Your task to perform on an android device: open app "Airtel Thanks" (install if not already installed) Image 0: 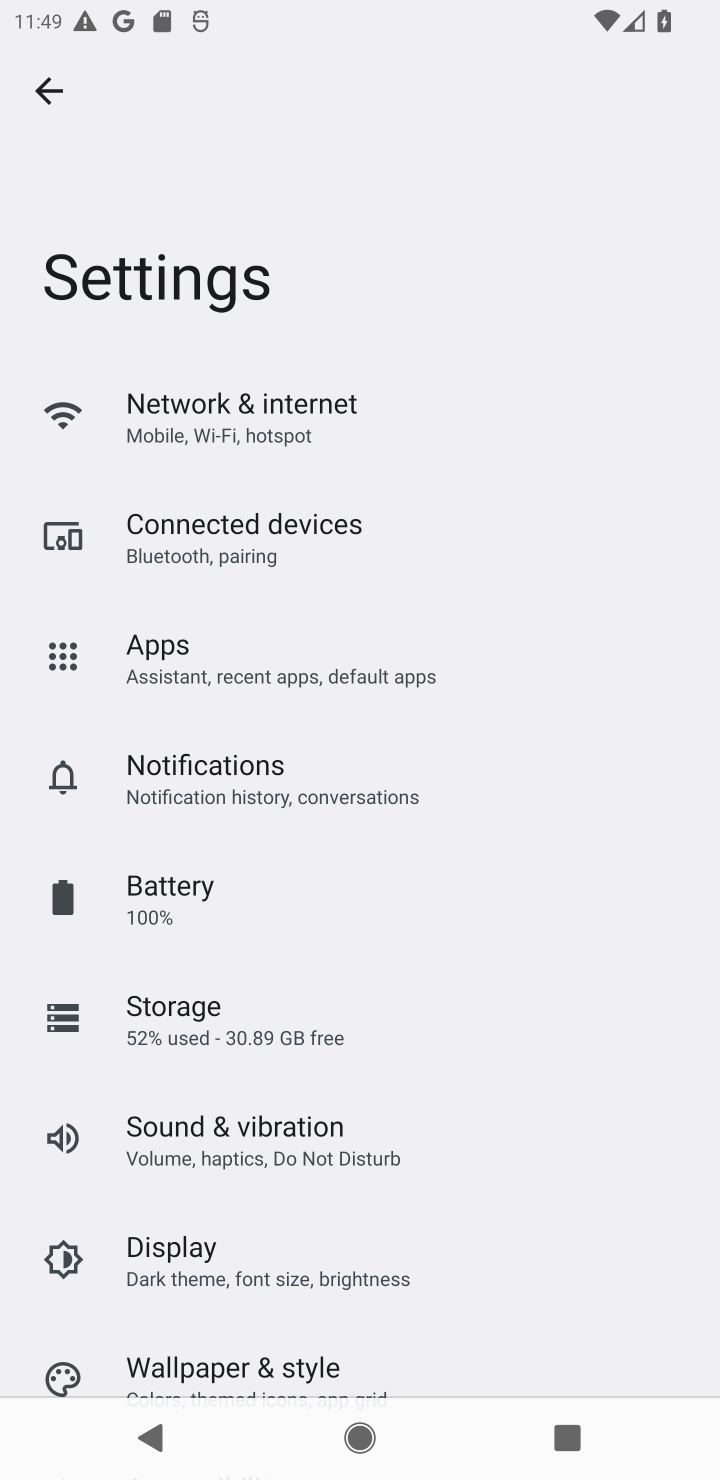
Step 0: press back button
Your task to perform on an android device: open app "Airtel Thanks" (install if not already installed) Image 1: 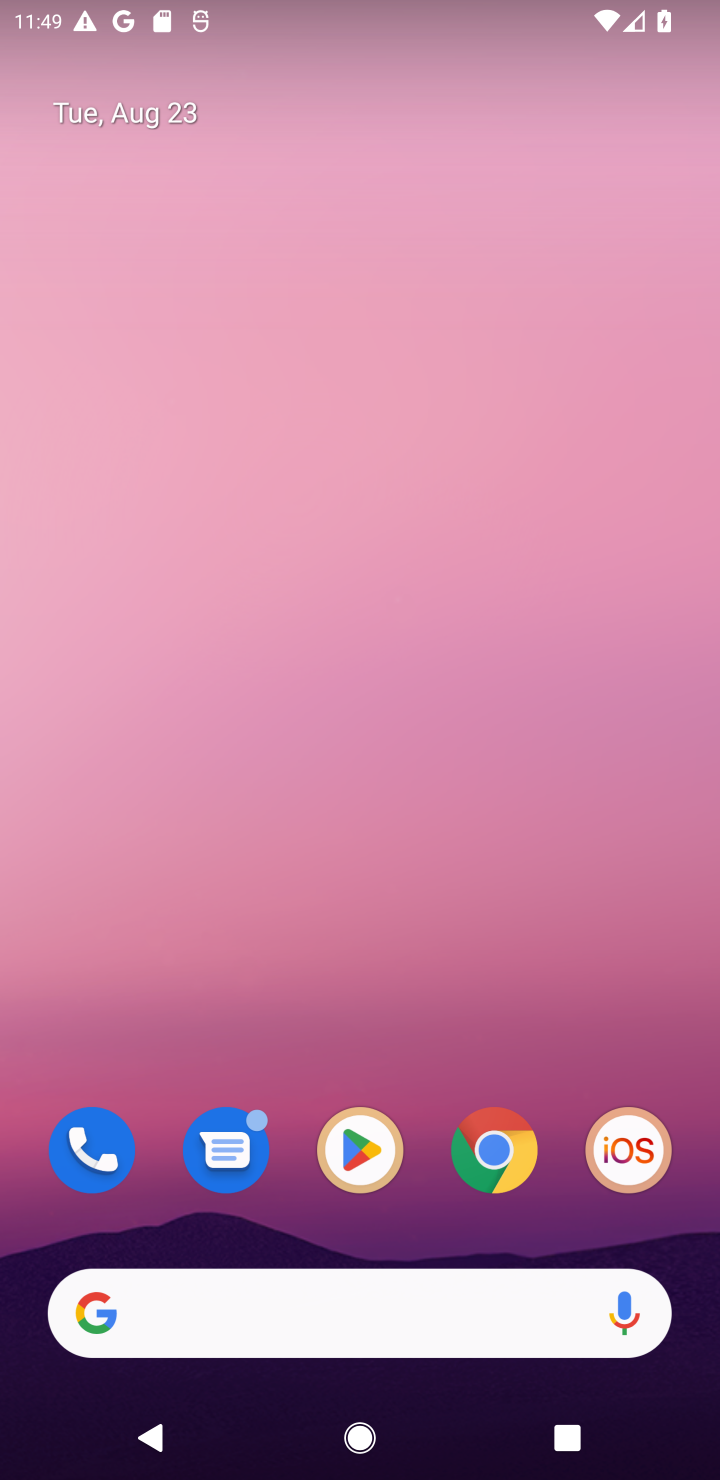
Step 1: press home button
Your task to perform on an android device: open app "Airtel Thanks" (install if not already installed) Image 2: 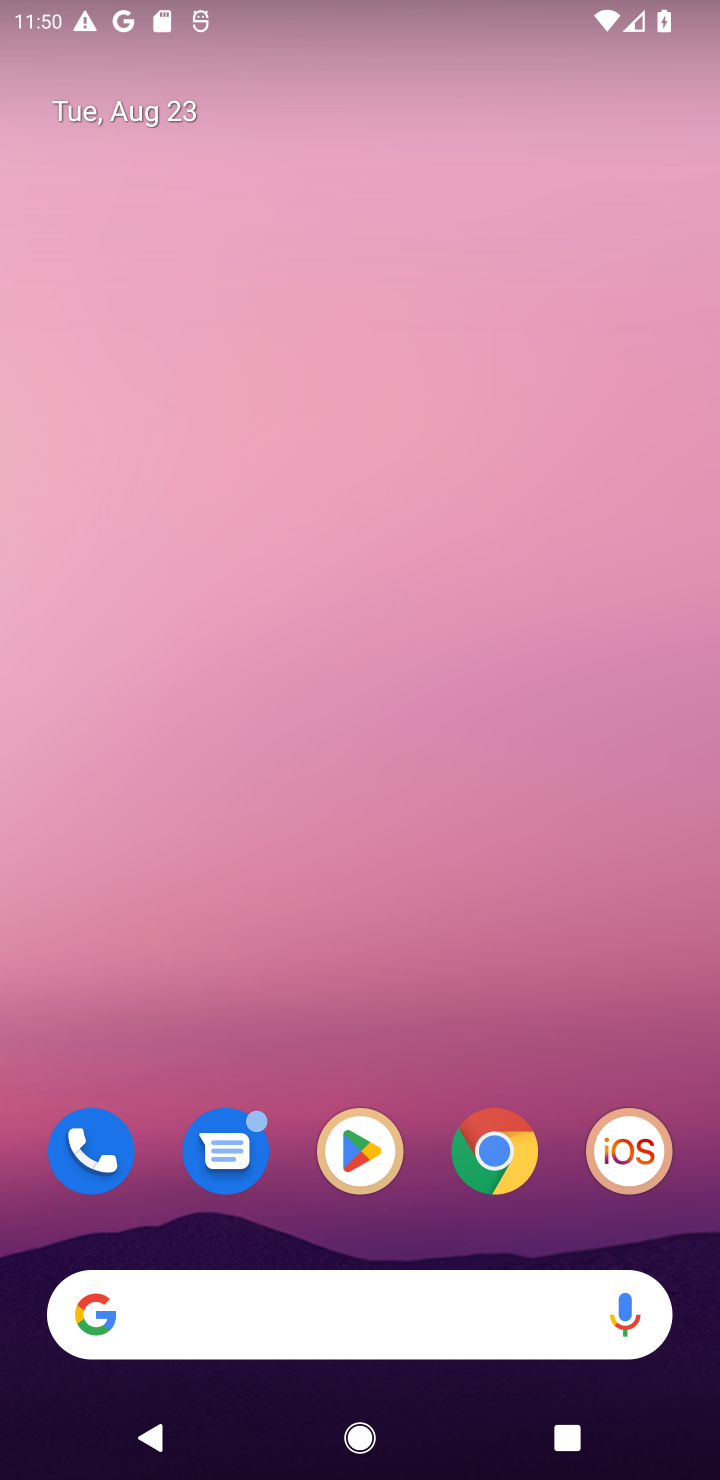
Step 2: click (391, 1114)
Your task to perform on an android device: open app "Airtel Thanks" (install if not already installed) Image 3: 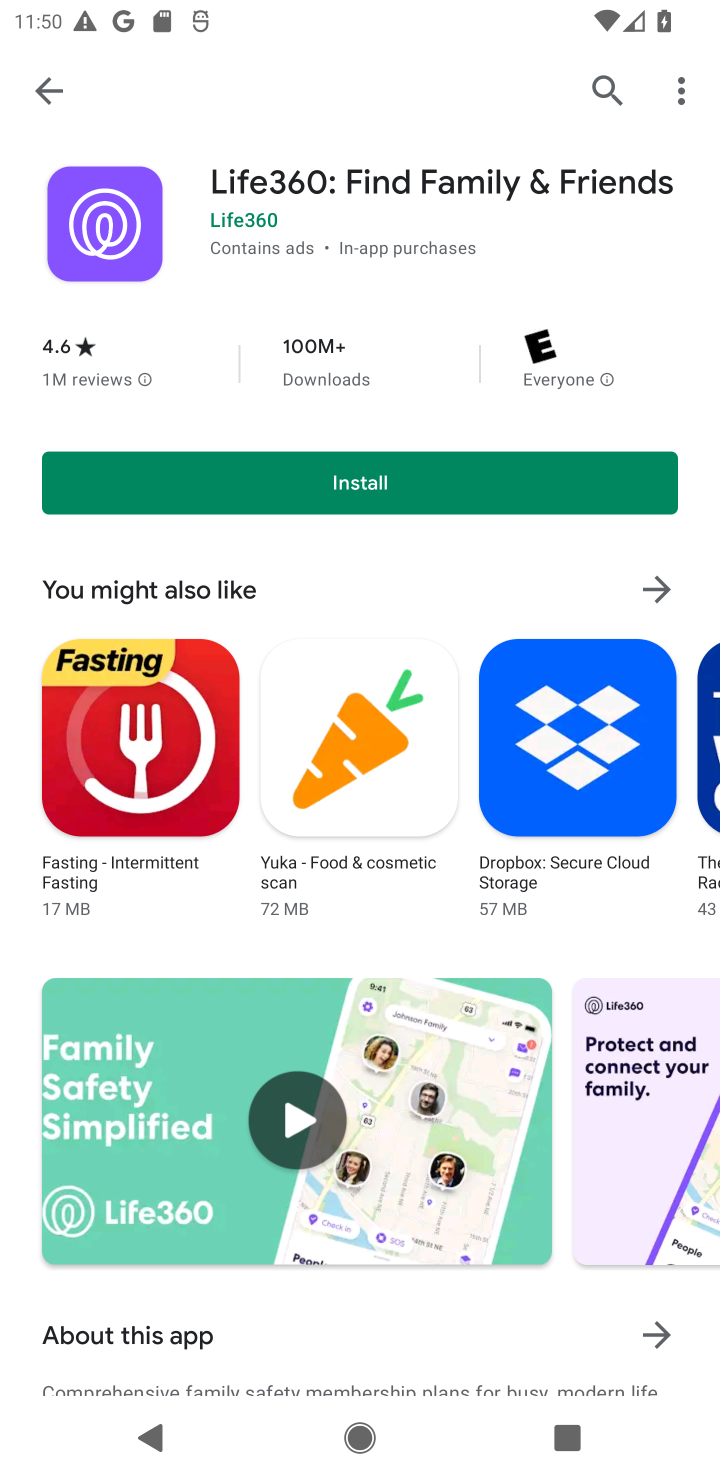
Step 3: click (610, 83)
Your task to perform on an android device: open app "Airtel Thanks" (install if not already installed) Image 4: 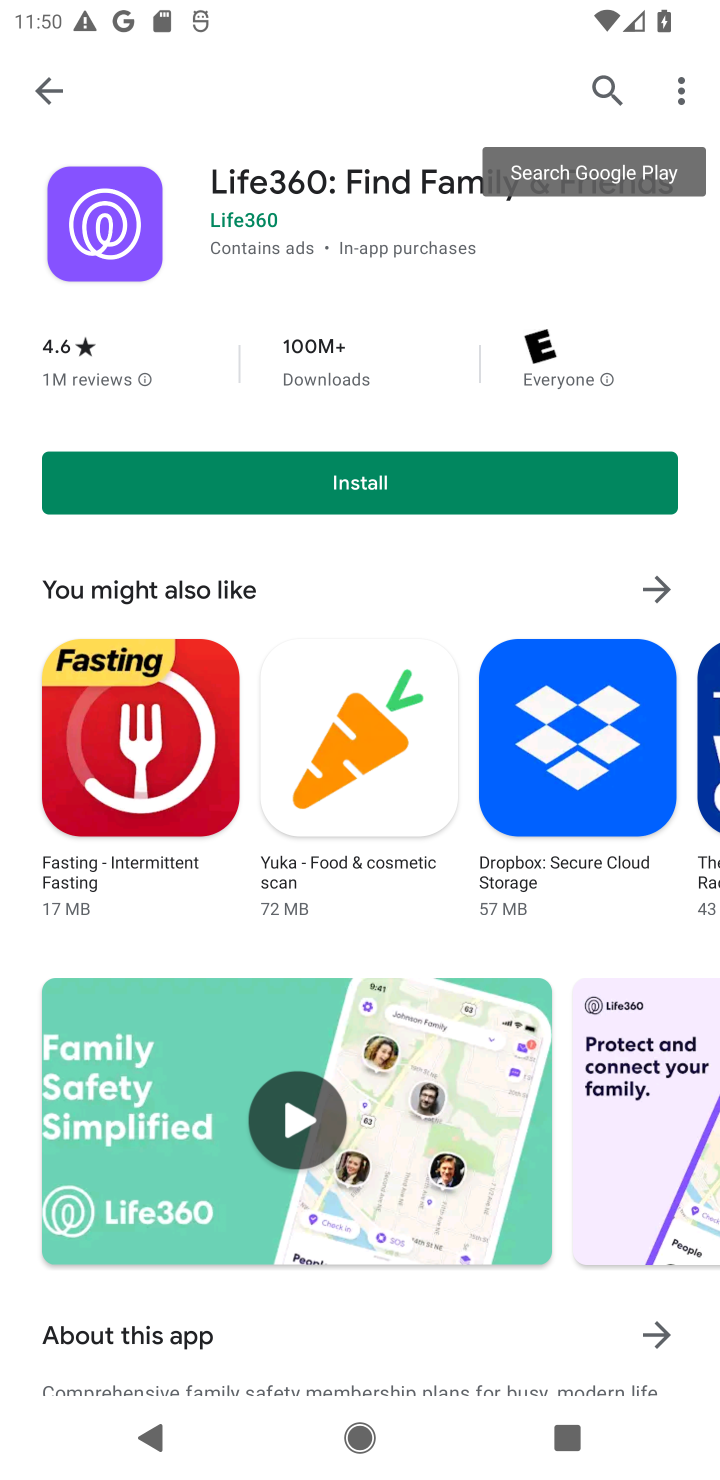
Step 4: click (608, 86)
Your task to perform on an android device: open app "Airtel Thanks" (install if not already installed) Image 5: 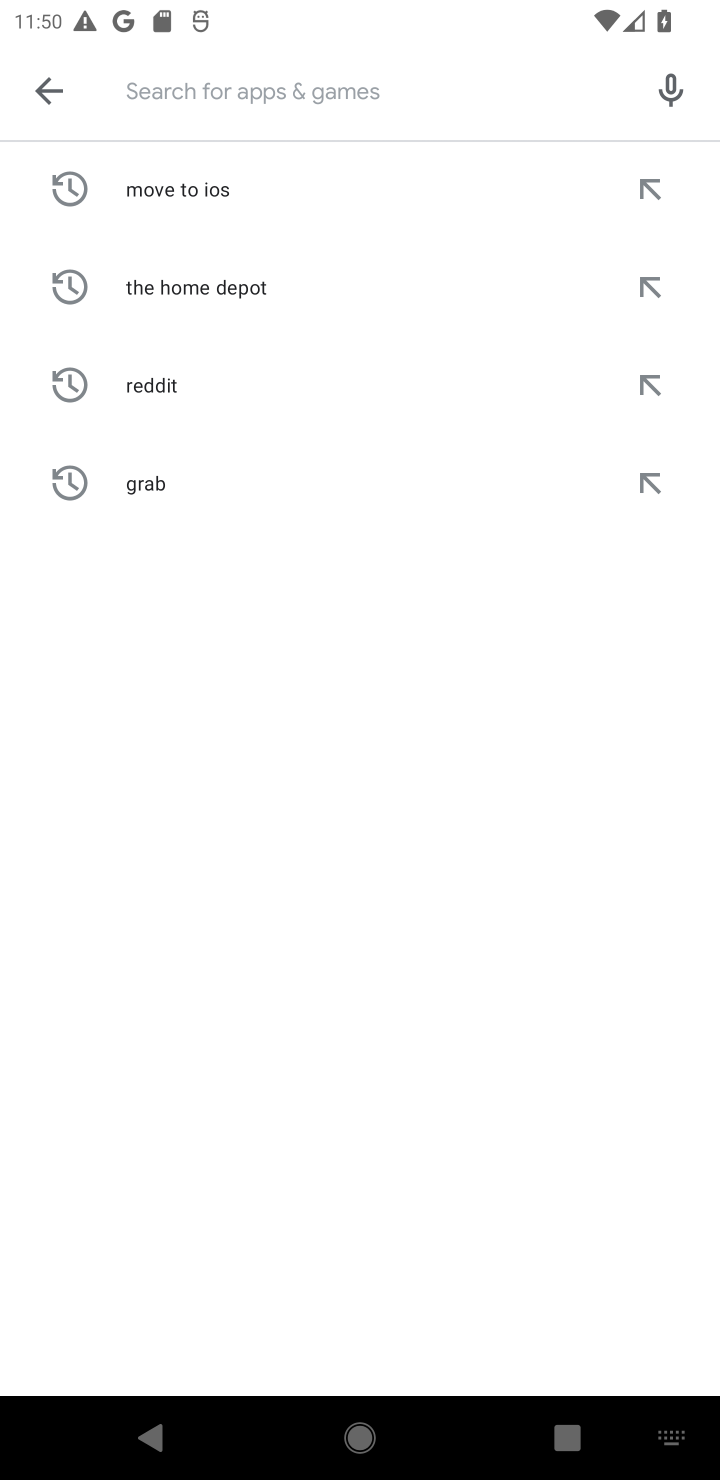
Step 5: type "Airtel Thanks"
Your task to perform on an android device: open app "Airtel Thanks" (install if not already installed) Image 6: 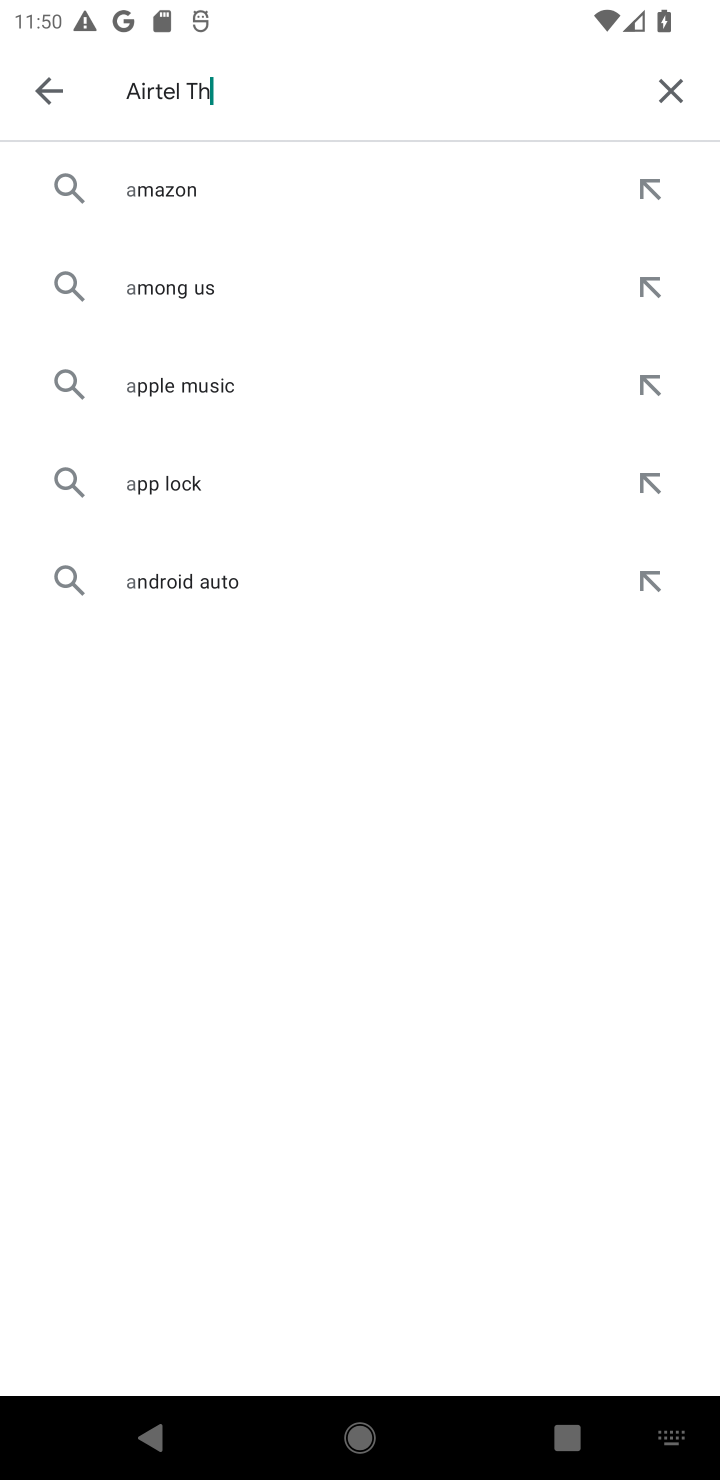
Step 6: type ""
Your task to perform on an android device: open app "Airtel Thanks" (install if not already installed) Image 7: 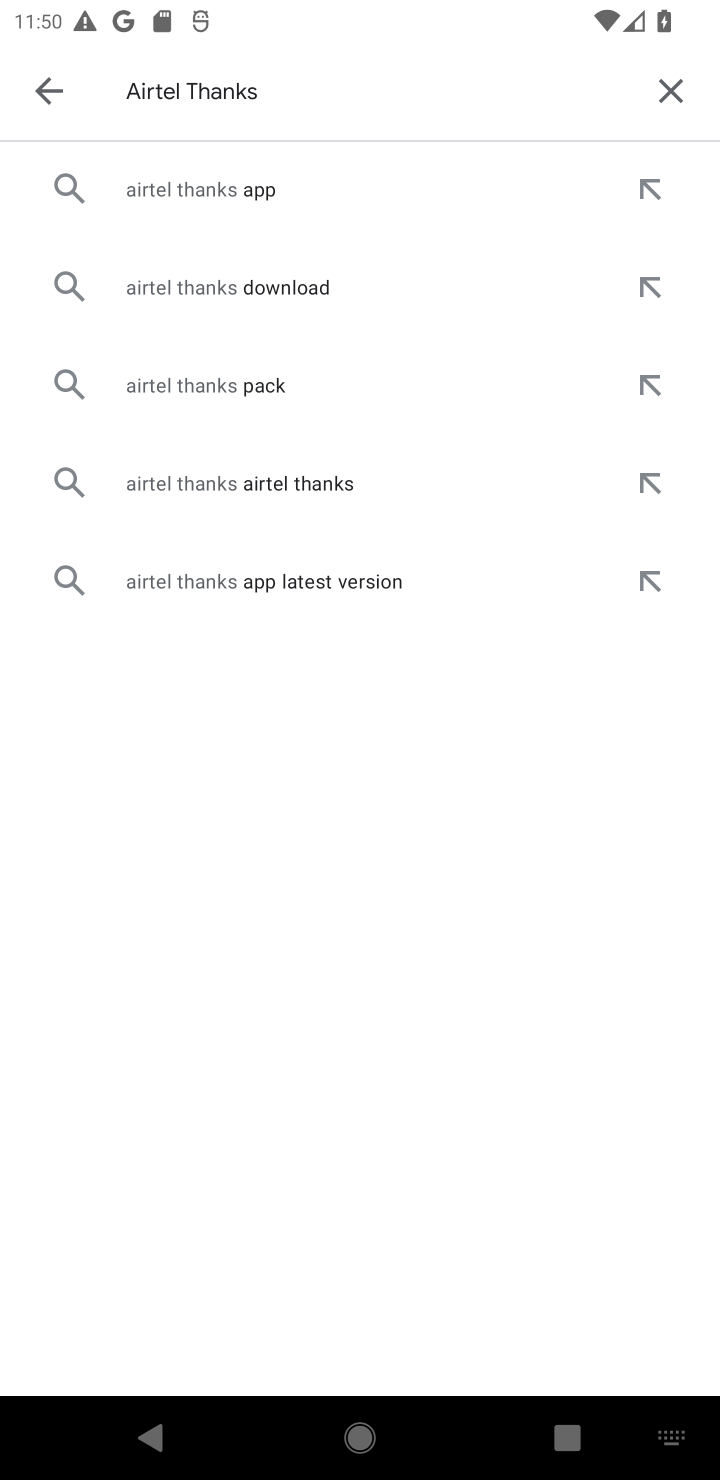
Step 7: click (198, 179)
Your task to perform on an android device: open app "Airtel Thanks" (install if not already installed) Image 8: 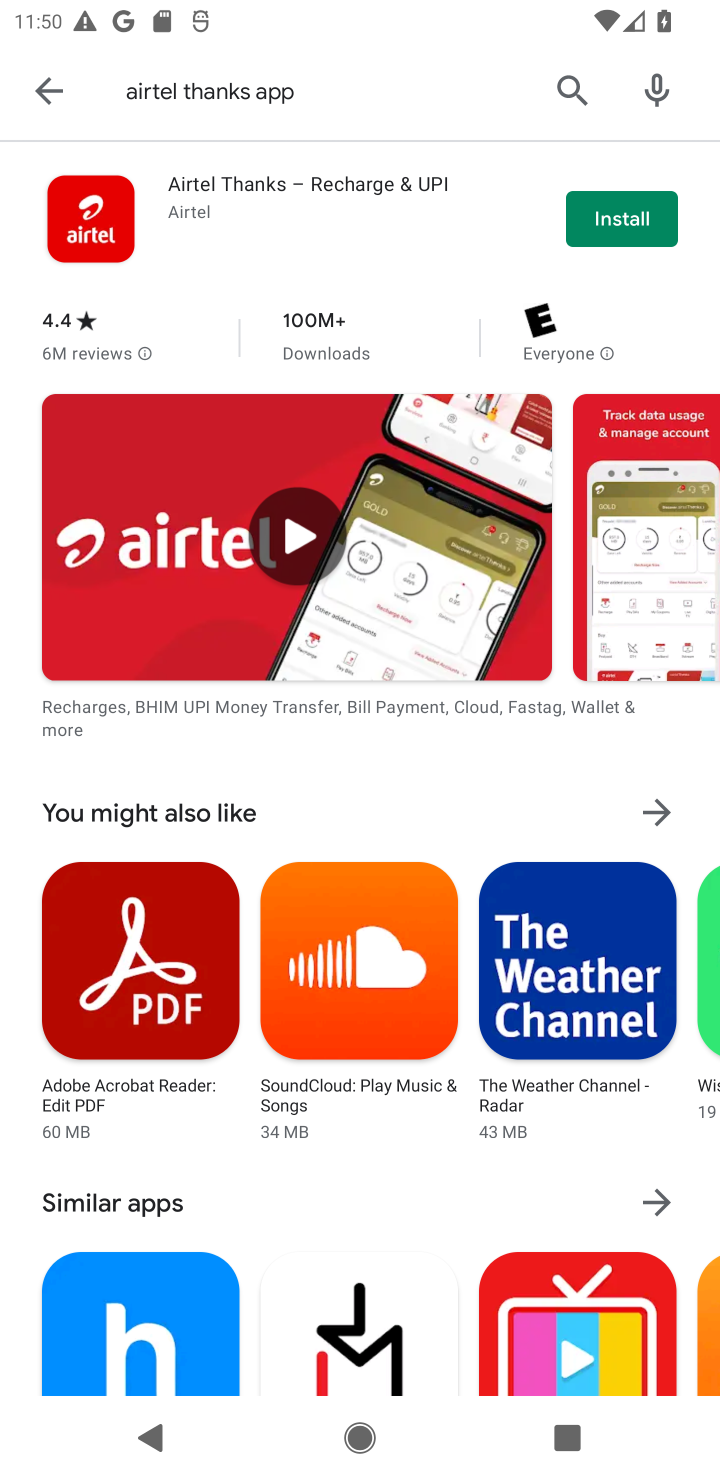
Step 8: click (573, 202)
Your task to perform on an android device: open app "Airtel Thanks" (install if not already installed) Image 9: 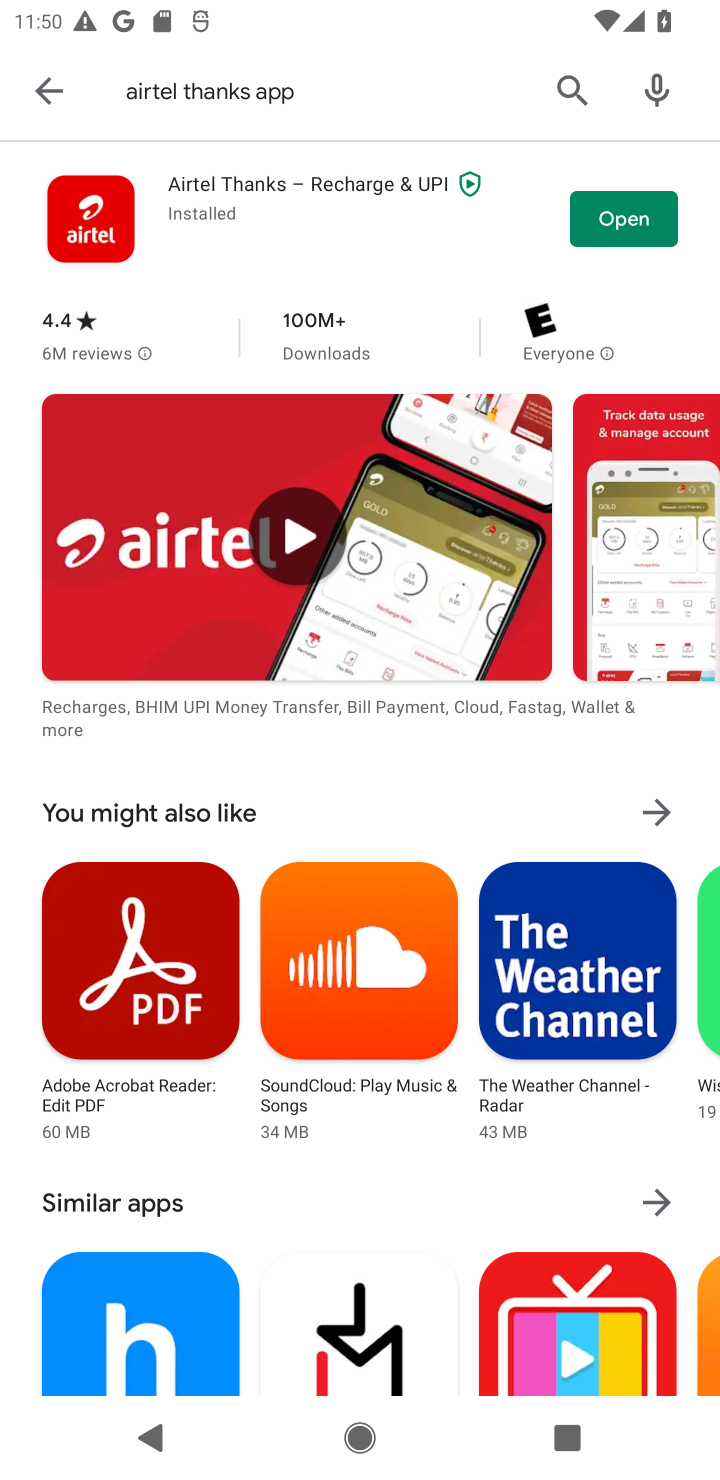
Step 9: click (589, 197)
Your task to perform on an android device: open app "Airtel Thanks" (install if not already installed) Image 10: 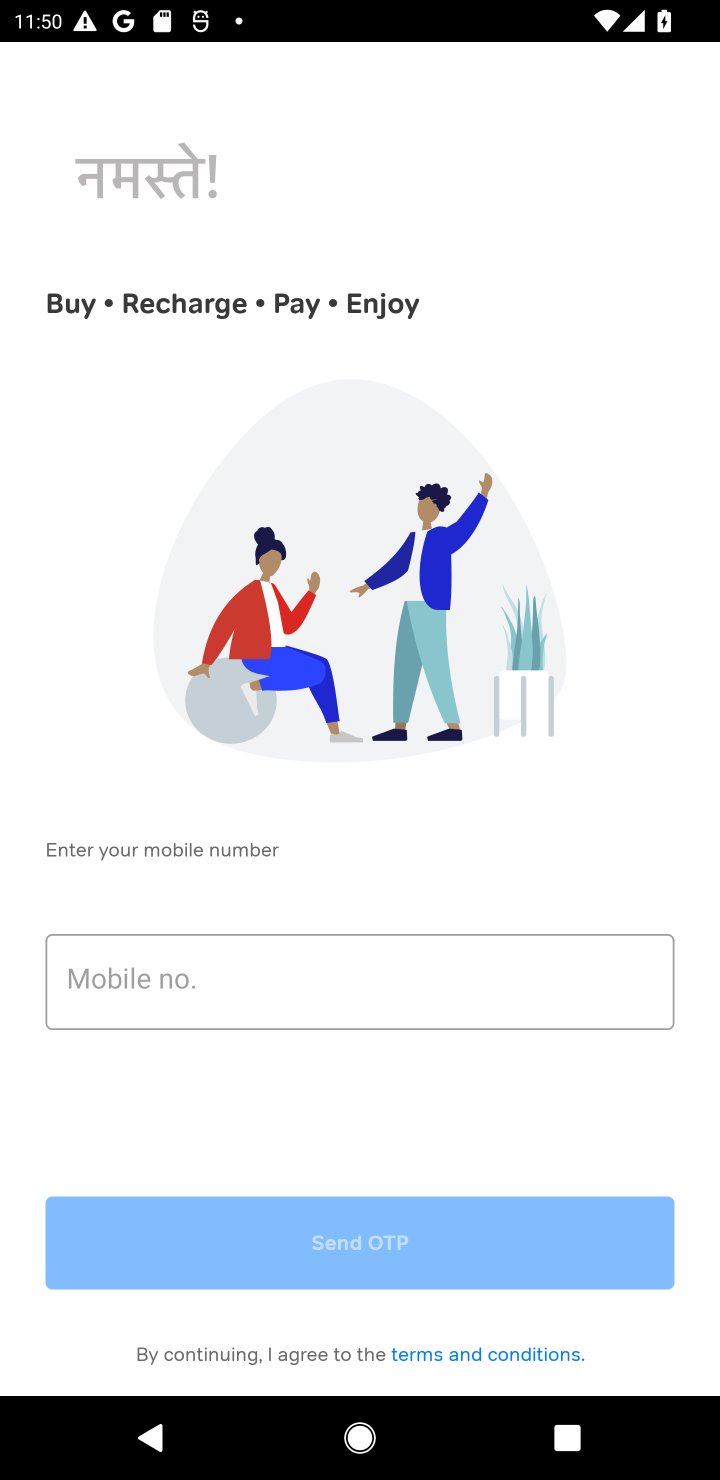
Step 10: task complete